Your task to perform on an android device: Go to location settings Image 0: 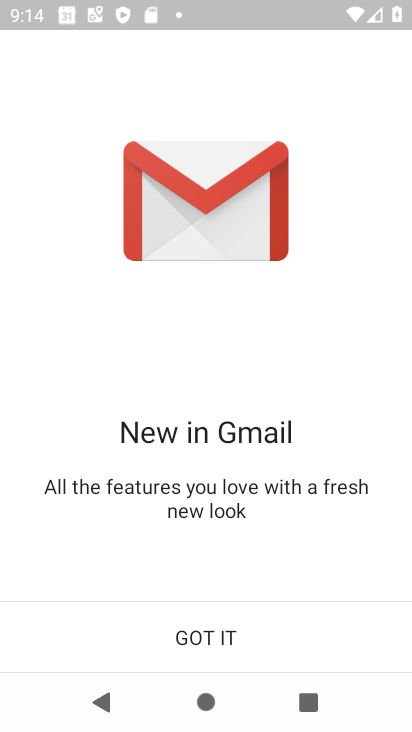
Step 0: click (205, 636)
Your task to perform on an android device: Go to location settings Image 1: 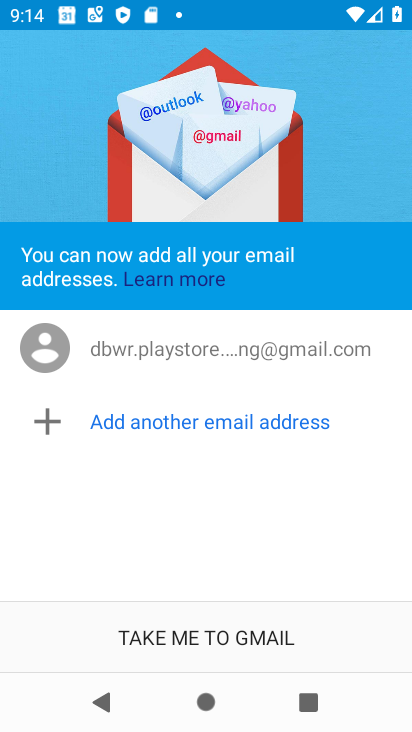
Step 1: click (205, 636)
Your task to perform on an android device: Go to location settings Image 2: 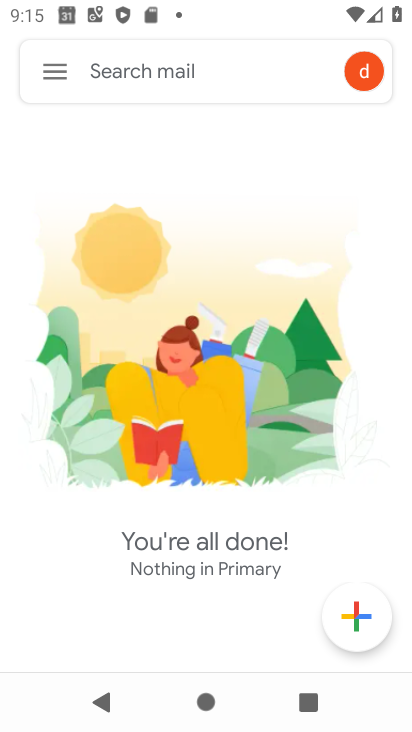
Step 2: press home button
Your task to perform on an android device: Go to location settings Image 3: 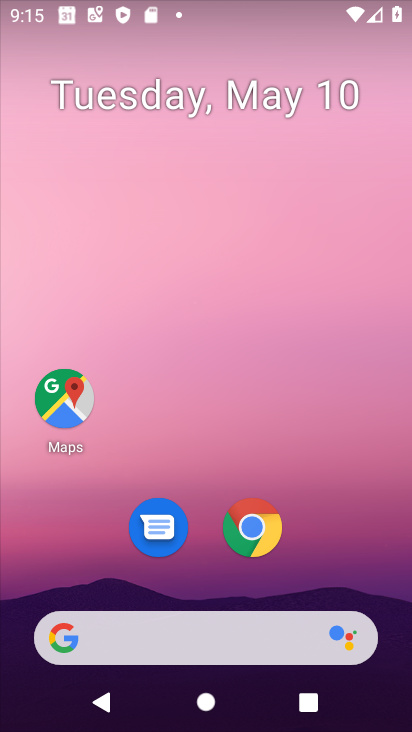
Step 3: drag from (322, 610) to (256, 285)
Your task to perform on an android device: Go to location settings Image 4: 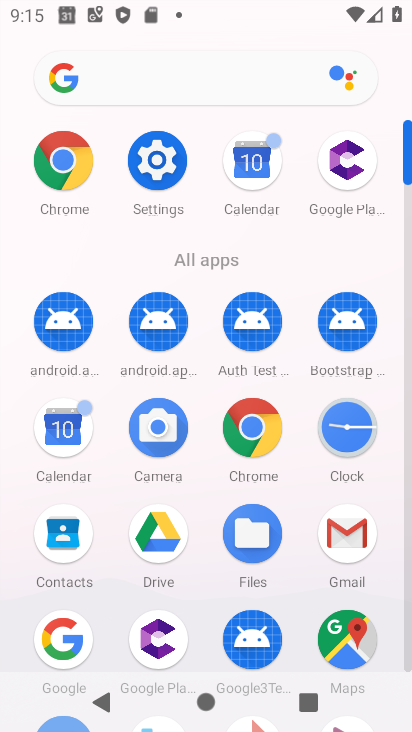
Step 4: click (160, 201)
Your task to perform on an android device: Go to location settings Image 5: 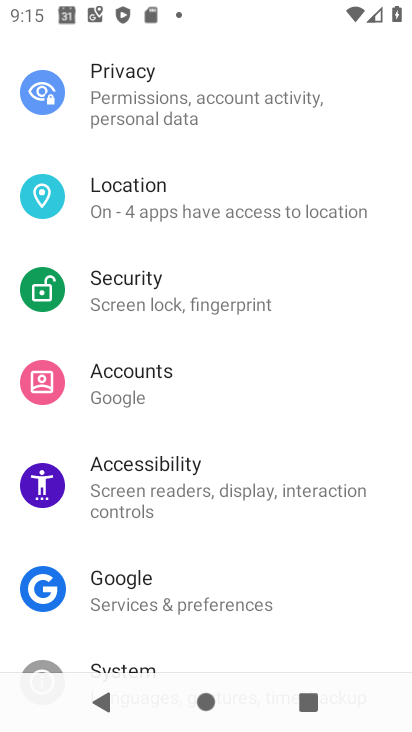
Step 5: click (160, 219)
Your task to perform on an android device: Go to location settings Image 6: 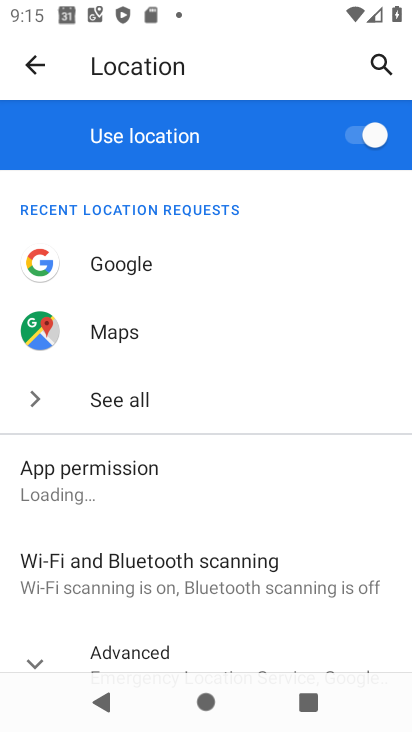
Step 6: task complete